Your task to perform on an android device: turn pop-ups off in chrome Image 0: 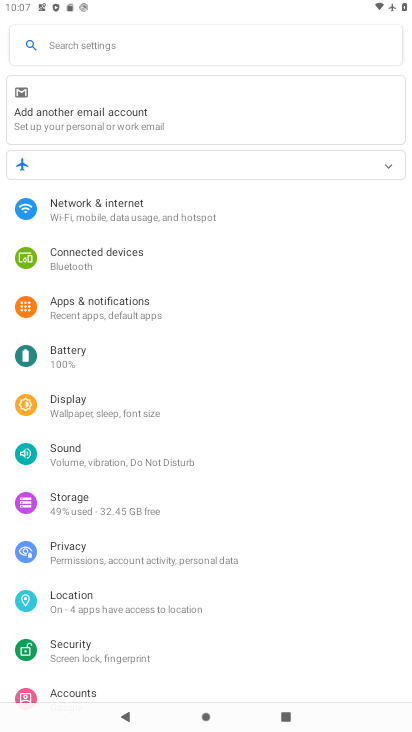
Step 0: press home button
Your task to perform on an android device: turn pop-ups off in chrome Image 1: 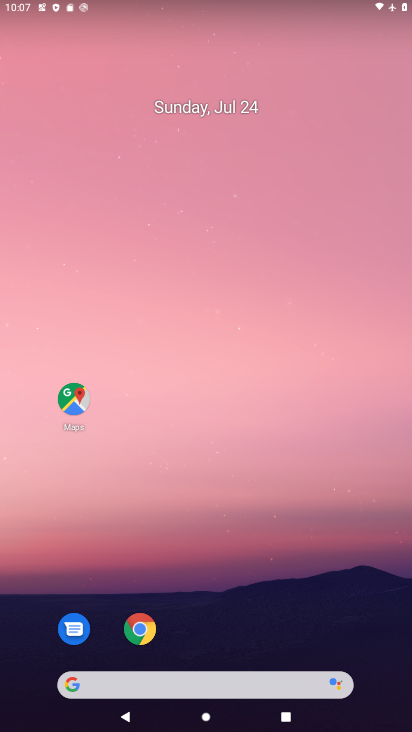
Step 1: click (146, 627)
Your task to perform on an android device: turn pop-ups off in chrome Image 2: 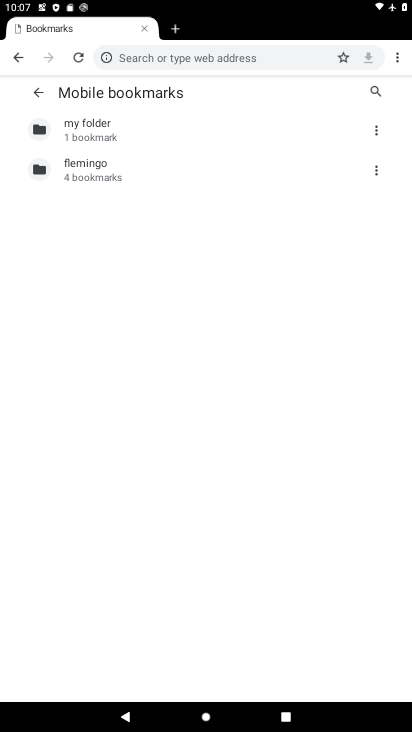
Step 2: click (396, 64)
Your task to perform on an android device: turn pop-ups off in chrome Image 3: 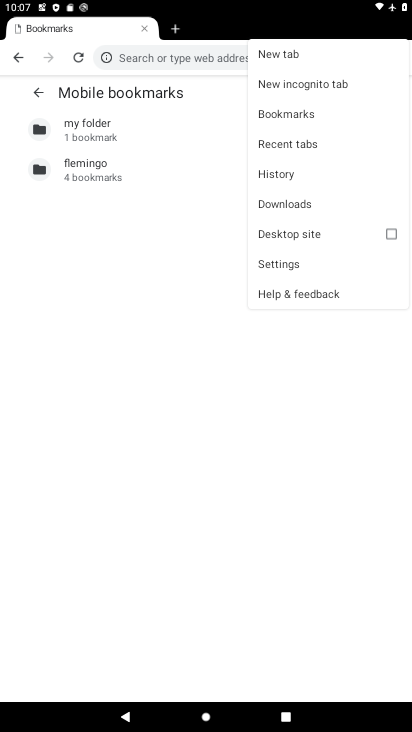
Step 3: click (310, 260)
Your task to perform on an android device: turn pop-ups off in chrome Image 4: 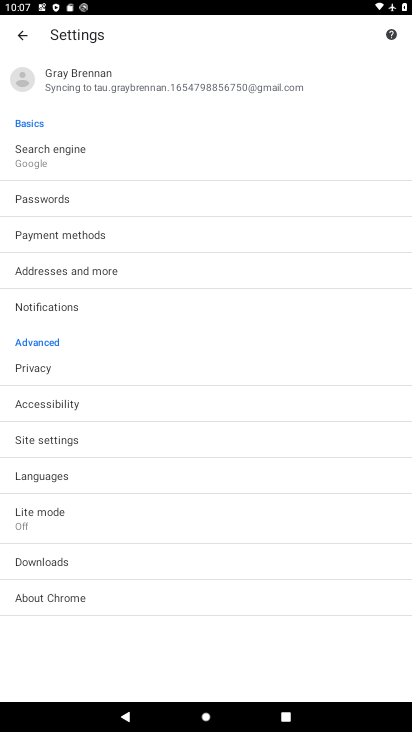
Step 4: click (90, 436)
Your task to perform on an android device: turn pop-ups off in chrome Image 5: 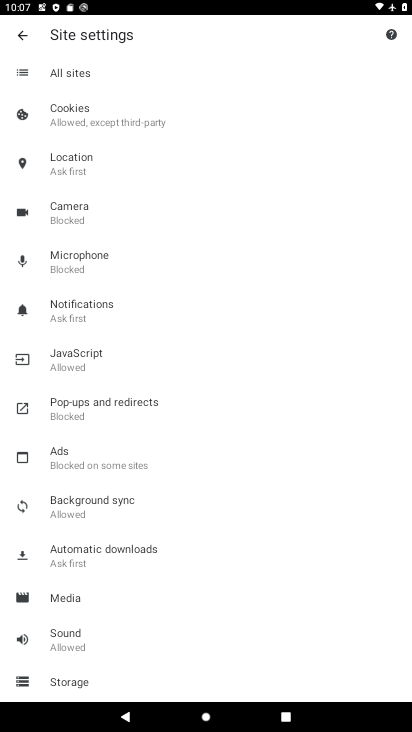
Step 5: click (123, 425)
Your task to perform on an android device: turn pop-ups off in chrome Image 6: 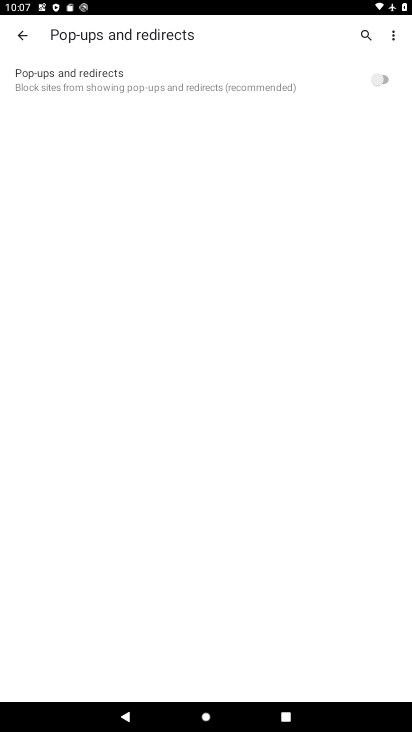
Step 6: click (365, 83)
Your task to perform on an android device: turn pop-ups off in chrome Image 7: 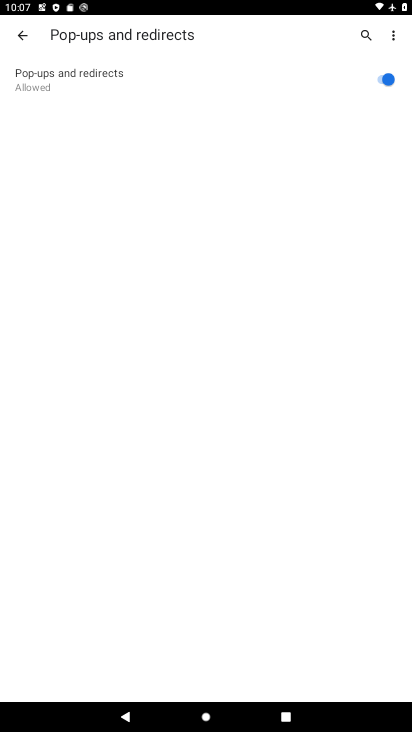
Step 7: task complete